Your task to perform on an android device: Open maps Image 0: 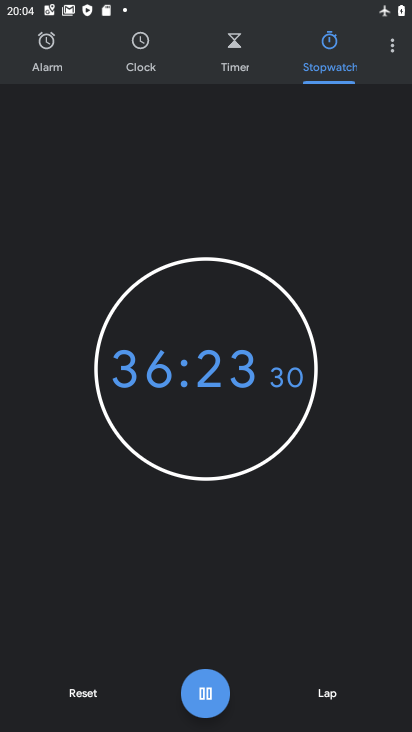
Step 0: press home button
Your task to perform on an android device: Open maps Image 1: 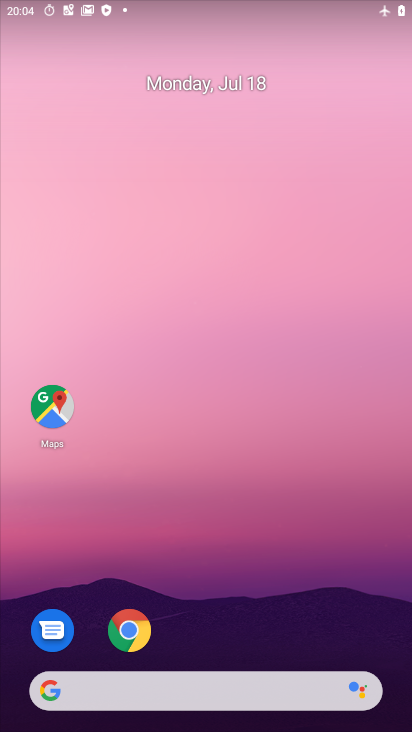
Step 1: drag from (253, 536) to (210, 58)
Your task to perform on an android device: Open maps Image 2: 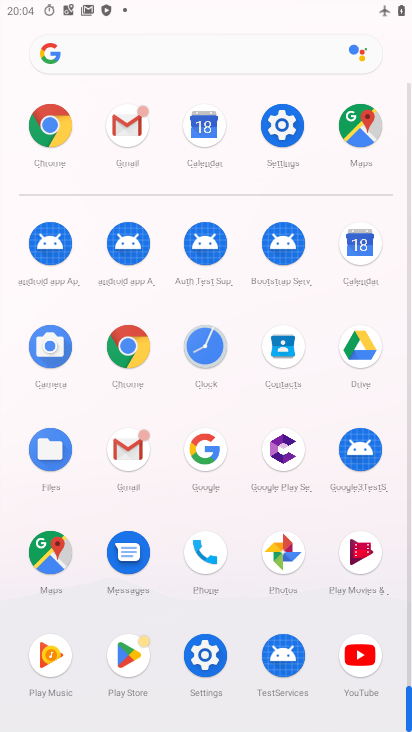
Step 2: click (365, 116)
Your task to perform on an android device: Open maps Image 3: 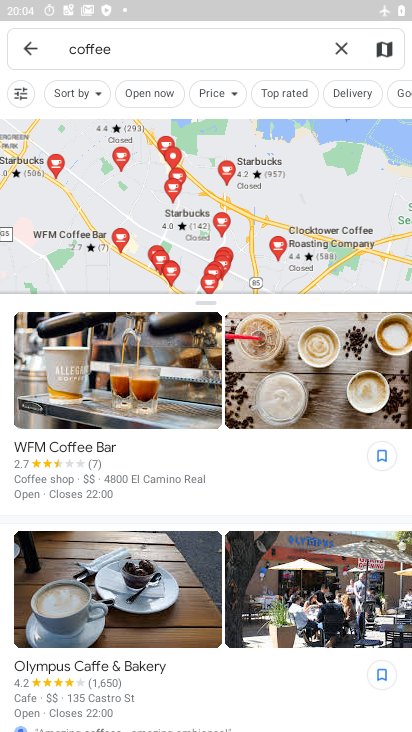
Step 3: task complete